Your task to perform on an android device: change the clock display to show seconds Image 0: 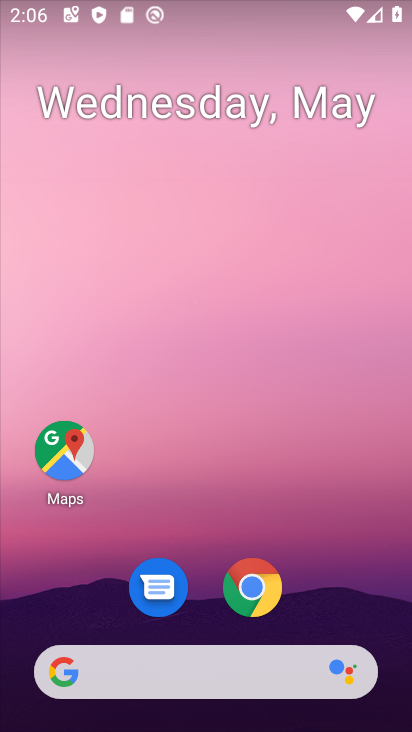
Step 0: drag from (352, 598) to (367, 132)
Your task to perform on an android device: change the clock display to show seconds Image 1: 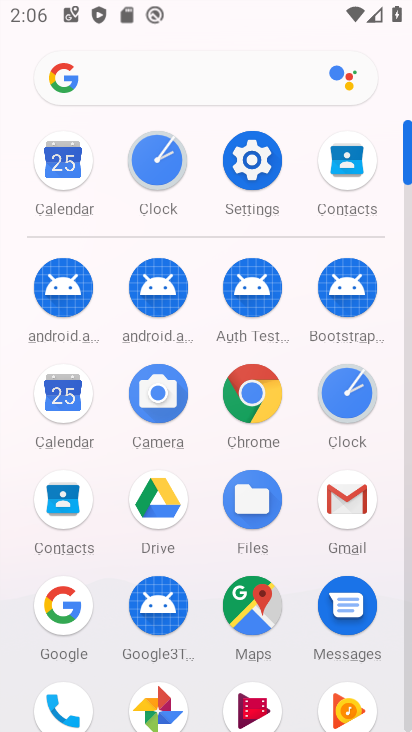
Step 1: click (359, 393)
Your task to perform on an android device: change the clock display to show seconds Image 2: 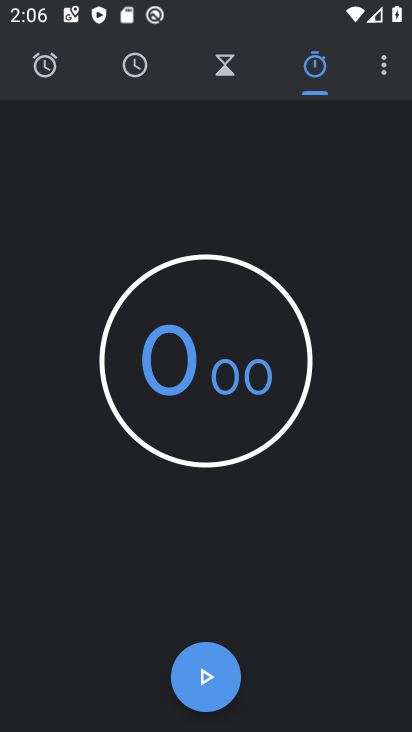
Step 2: click (394, 70)
Your task to perform on an android device: change the clock display to show seconds Image 3: 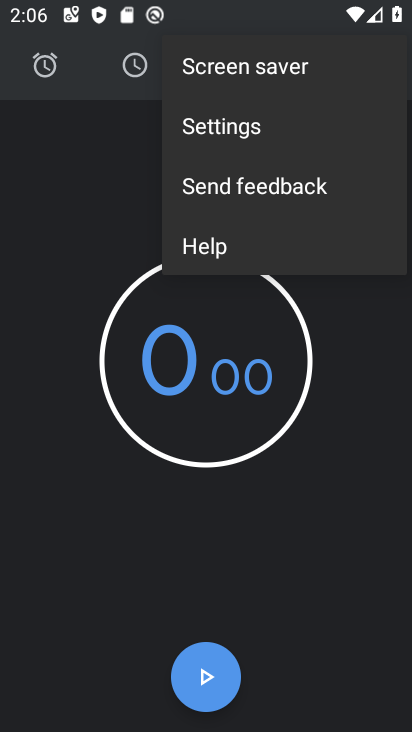
Step 3: click (272, 131)
Your task to perform on an android device: change the clock display to show seconds Image 4: 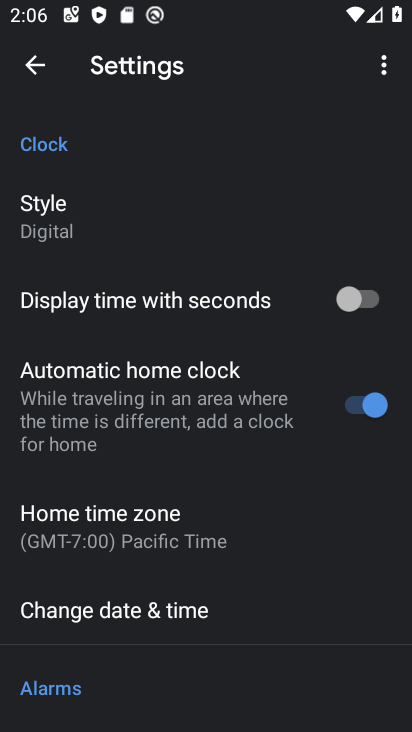
Step 4: drag from (164, 663) to (210, 243)
Your task to perform on an android device: change the clock display to show seconds Image 5: 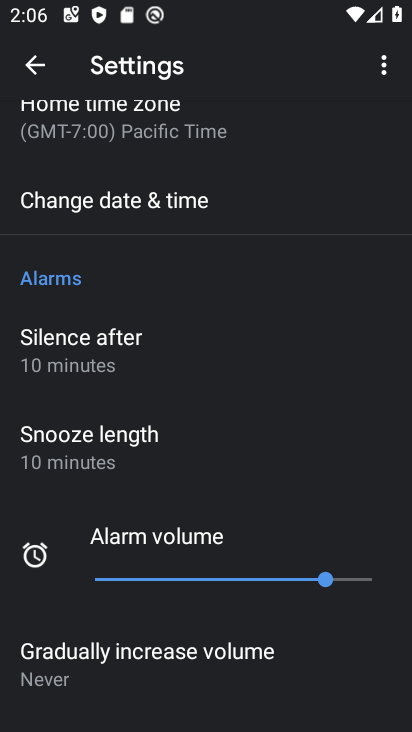
Step 5: drag from (201, 149) to (194, 436)
Your task to perform on an android device: change the clock display to show seconds Image 6: 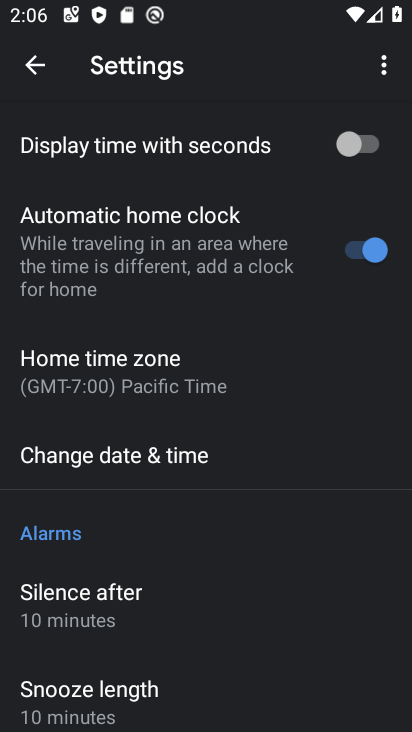
Step 6: click (357, 124)
Your task to perform on an android device: change the clock display to show seconds Image 7: 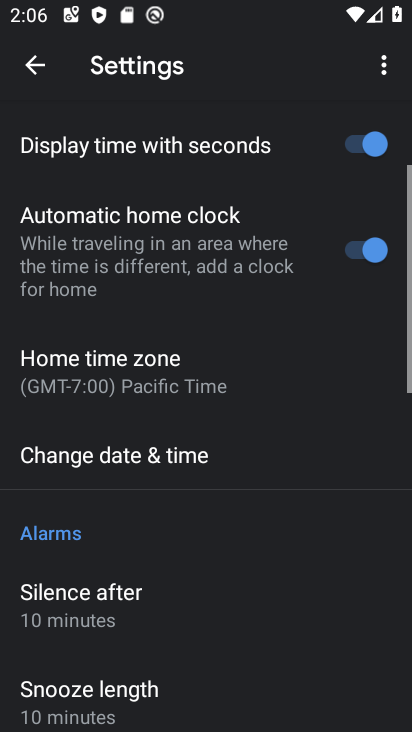
Step 7: task complete